Your task to perform on an android device: Open accessibility settings Image 0: 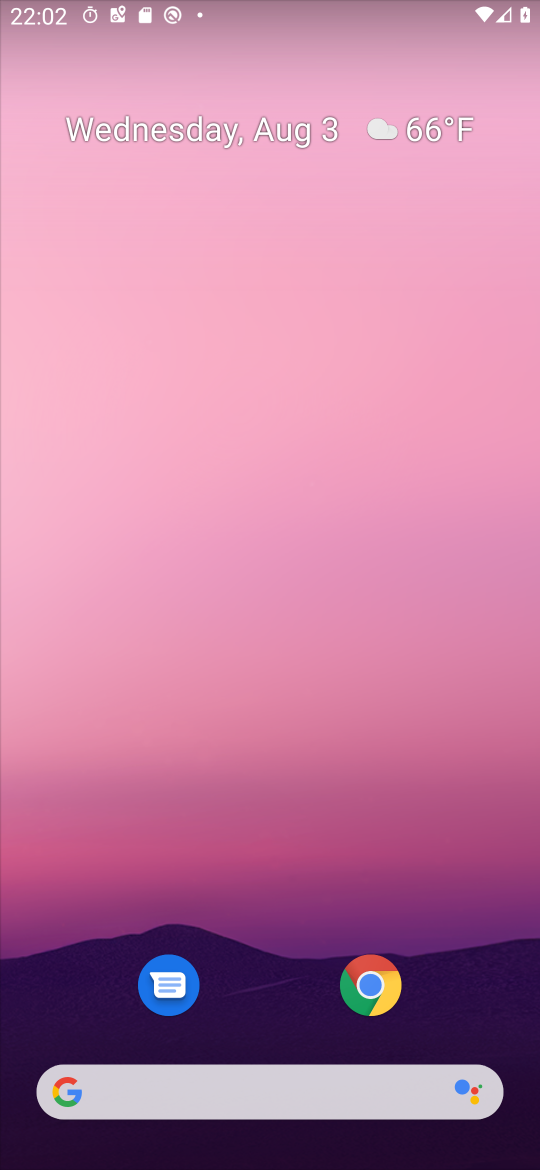
Step 0: drag from (256, 615) to (250, 138)
Your task to perform on an android device: Open accessibility settings Image 1: 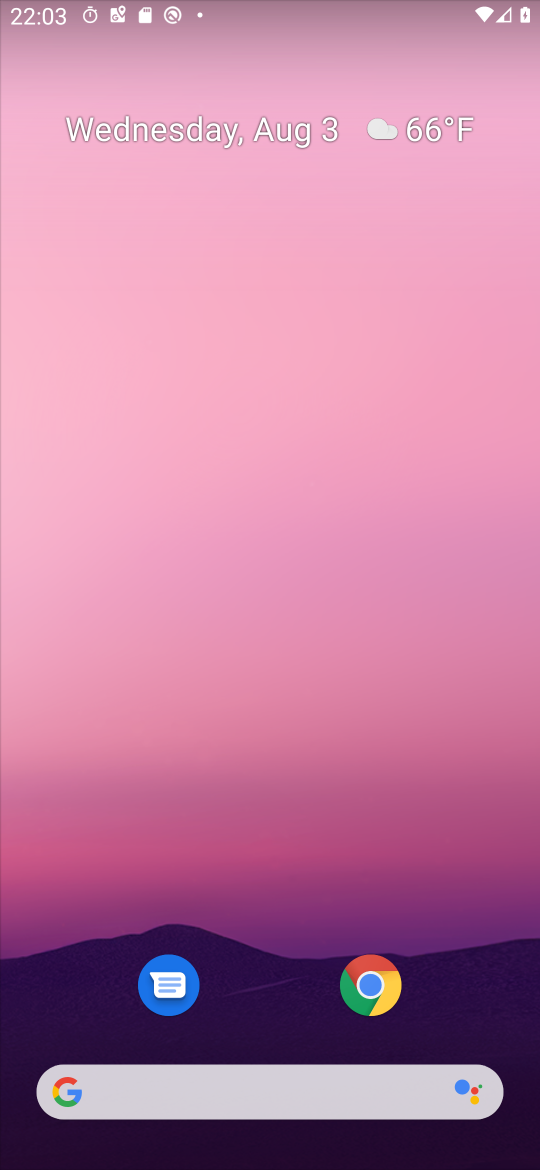
Step 1: drag from (251, 985) to (283, 196)
Your task to perform on an android device: Open accessibility settings Image 2: 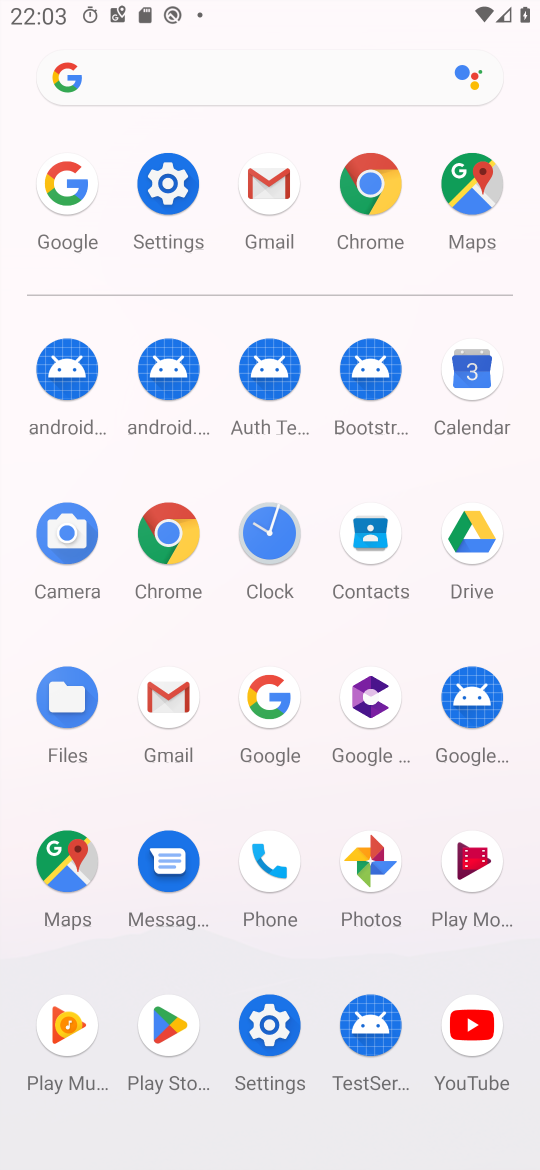
Step 2: click (167, 180)
Your task to perform on an android device: Open accessibility settings Image 3: 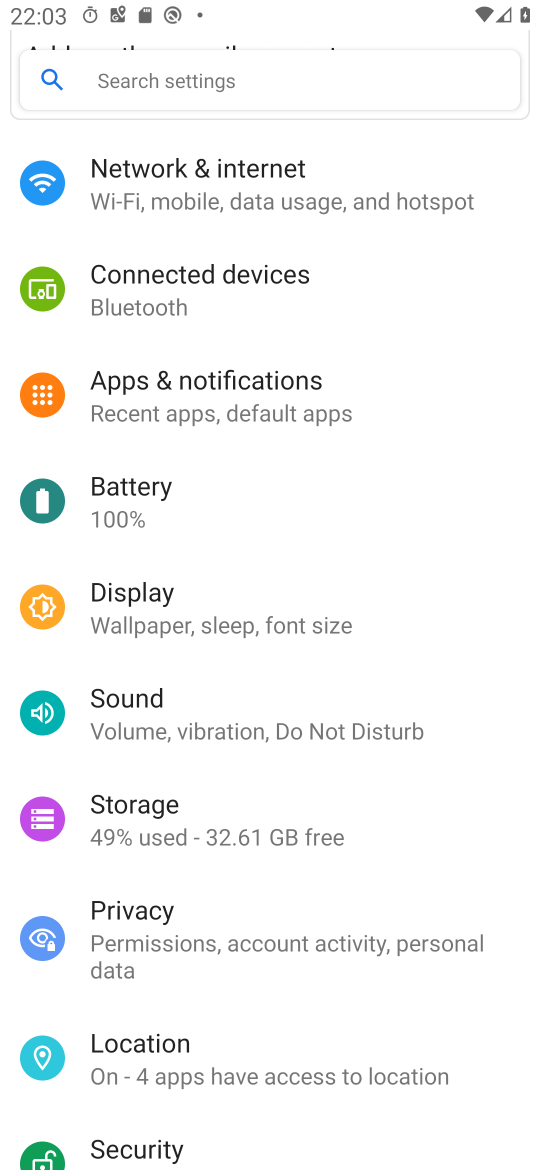
Step 3: drag from (265, 986) to (305, 416)
Your task to perform on an android device: Open accessibility settings Image 4: 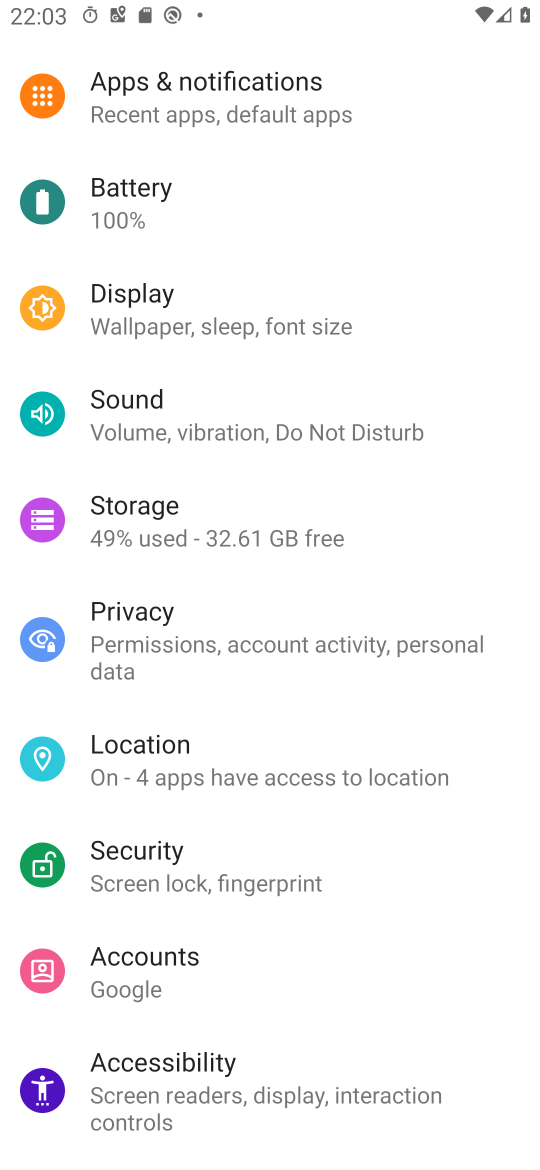
Step 4: click (217, 1087)
Your task to perform on an android device: Open accessibility settings Image 5: 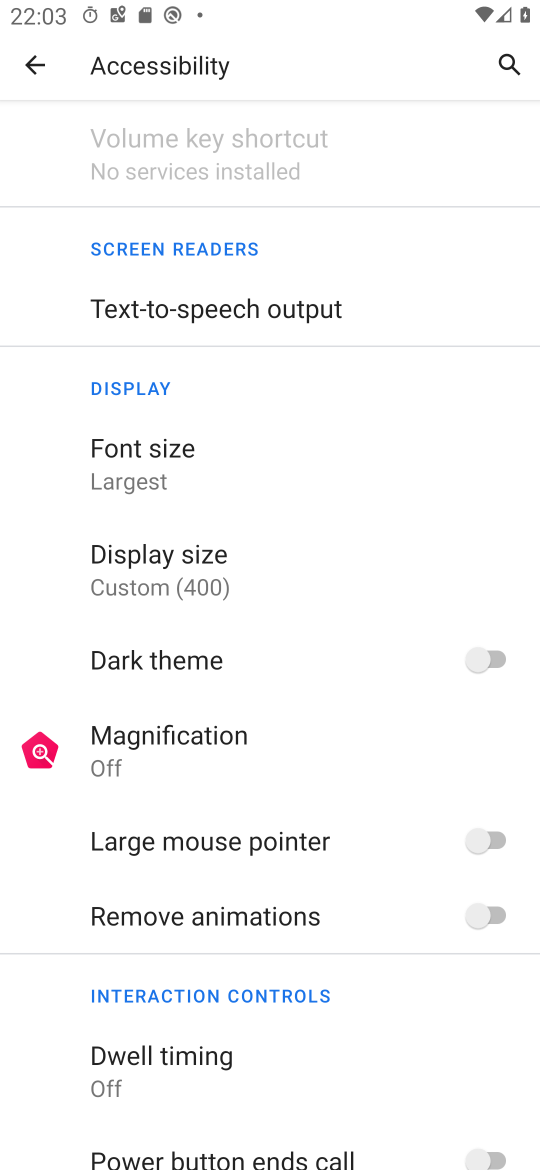
Step 5: task complete